Your task to perform on an android device: turn off wifi Image 0: 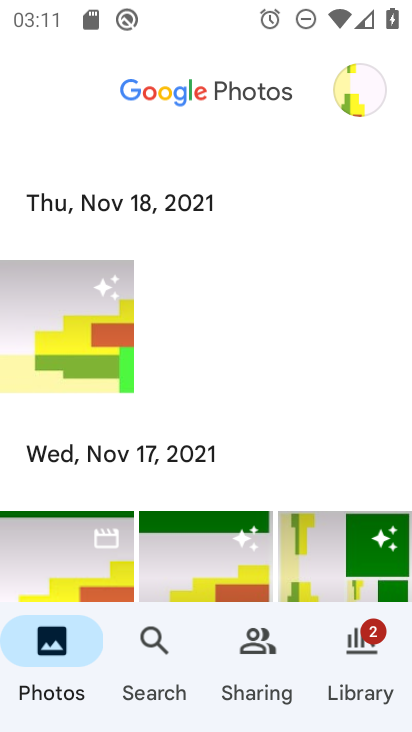
Step 0: press home button
Your task to perform on an android device: turn off wifi Image 1: 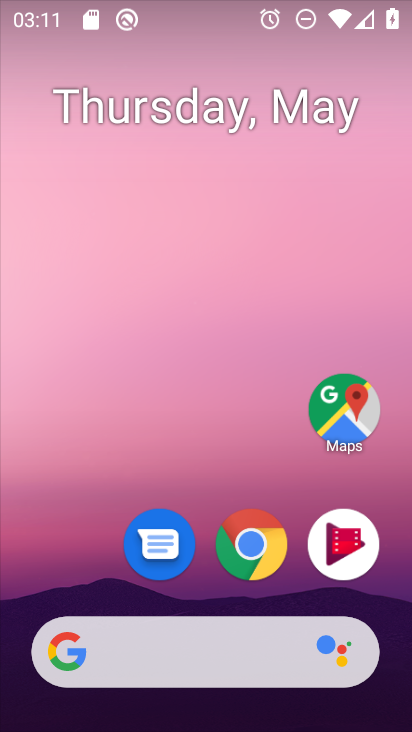
Step 1: drag from (86, 567) to (100, 114)
Your task to perform on an android device: turn off wifi Image 2: 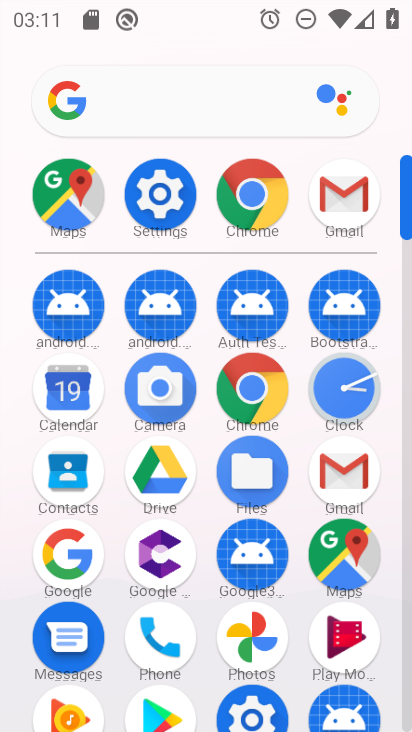
Step 2: click (166, 210)
Your task to perform on an android device: turn off wifi Image 3: 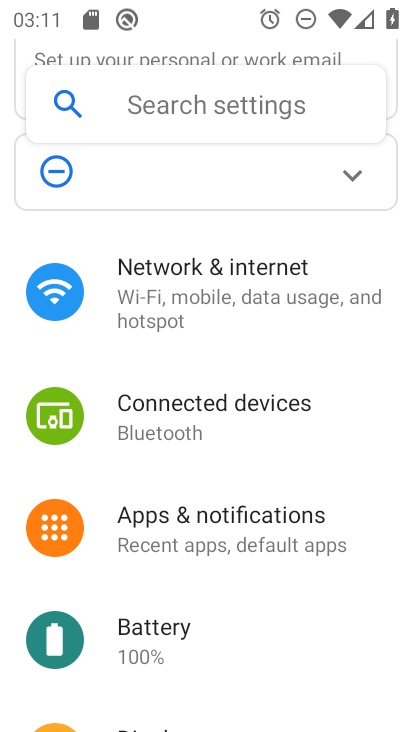
Step 3: drag from (300, 624) to (313, 514)
Your task to perform on an android device: turn off wifi Image 4: 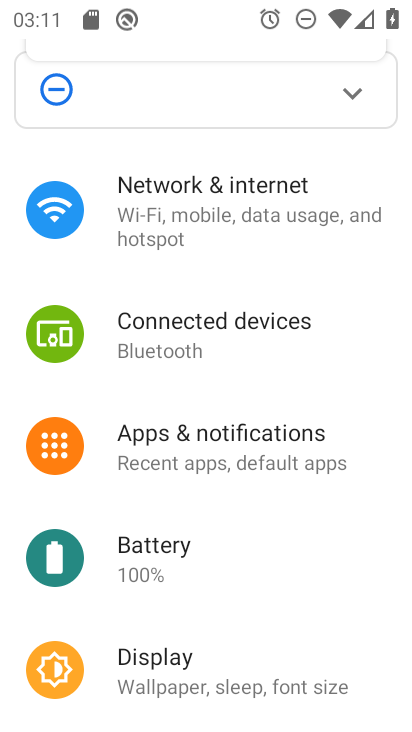
Step 4: drag from (311, 610) to (343, 472)
Your task to perform on an android device: turn off wifi Image 5: 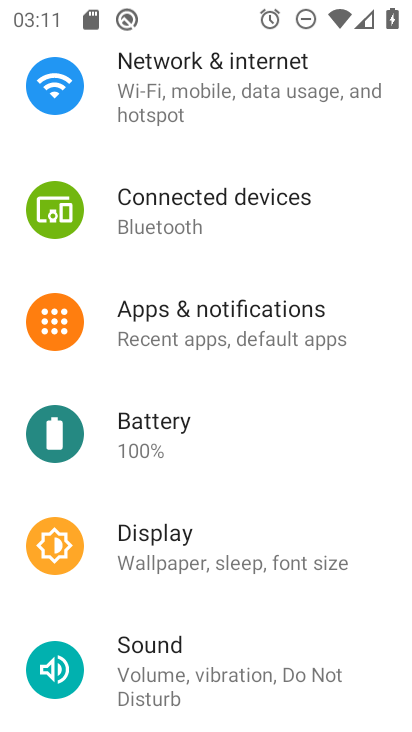
Step 5: drag from (337, 625) to (361, 469)
Your task to perform on an android device: turn off wifi Image 6: 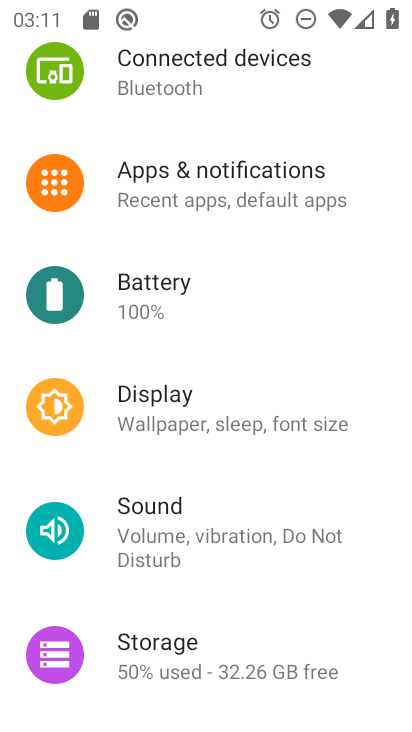
Step 6: drag from (352, 624) to (363, 487)
Your task to perform on an android device: turn off wifi Image 7: 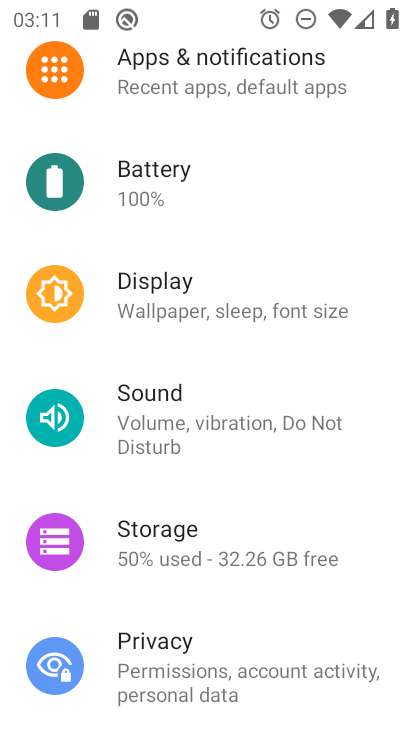
Step 7: drag from (358, 625) to (355, 489)
Your task to perform on an android device: turn off wifi Image 8: 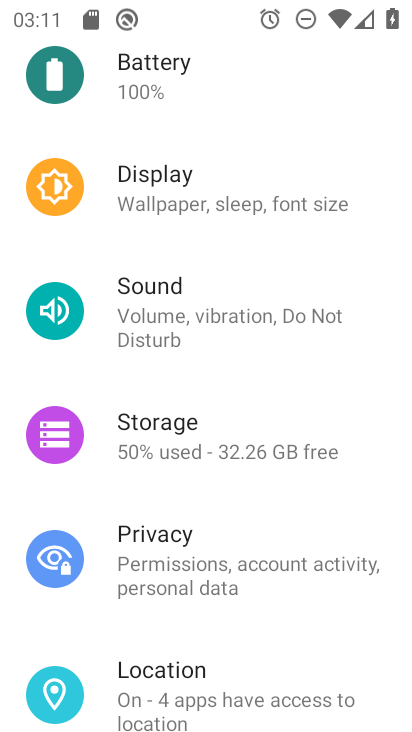
Step 8: drag from (353, 646) to (359, 522)
Your task to perform on an android device: turn off wifi Image 9: 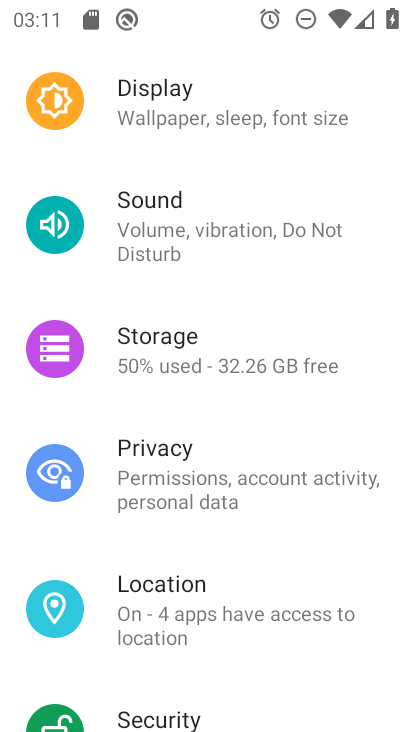
Step 9: drag from (348, 650) to (370, 520)
Your task to perform on an android device: turn off wifi Image 10: 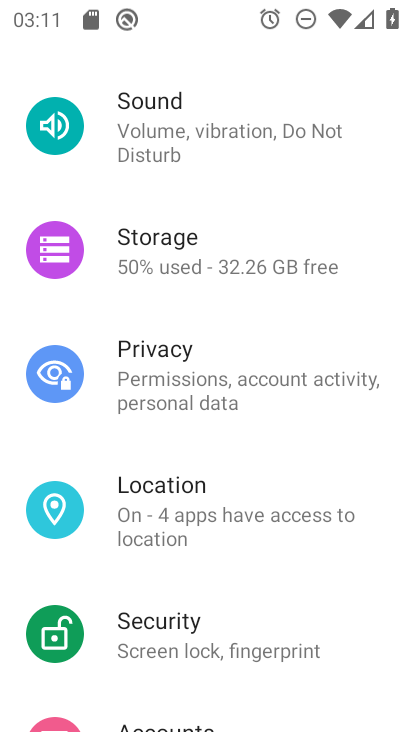
Step 10: drag from (371, 644) to (376, 537)
Your task to perform on an android device: turn off wifi Image 11: 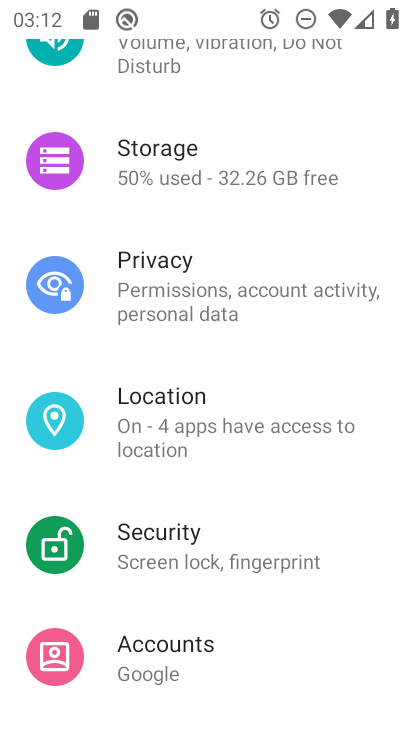
Step 11: drag from (338, 681) to (332, 566)
Your task to perform on an android device: turn off wifi Image 12: 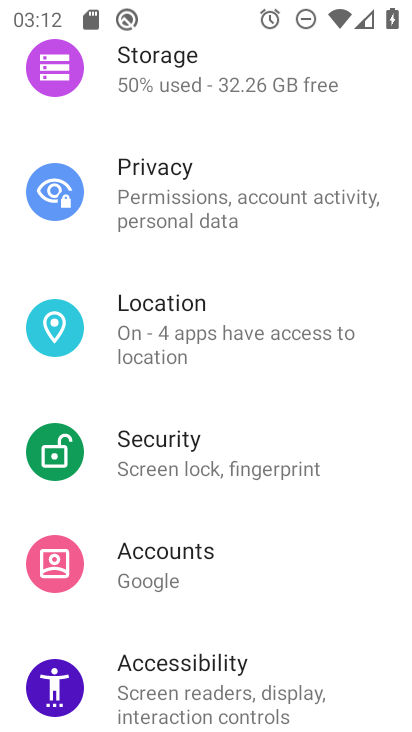
Step 12: drag from (338, 680) to (344, 572)
Your task to perform on an android device: turn off wifi Image 13: 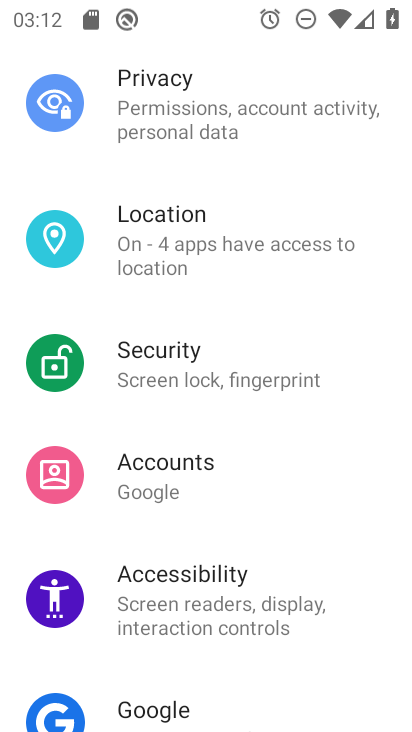
Step 13: drag from (352, 699) to (350, 563)
Your task to perform on an android device: turn off wifi Image 14: 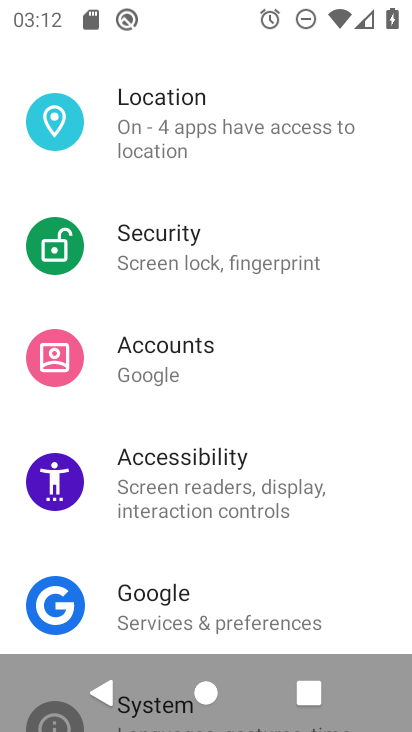
Step 14: drag from (356, 602) to (375, 456)
Your task to perform on an android device: turn off wifi Image 15: 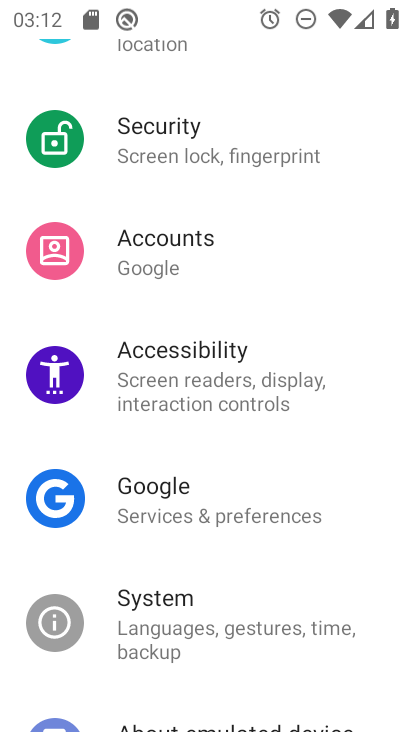
Step 15: drag from (351, 583) to (362, 456)
Your task to perform on an android device: turn off wifi Image 16: 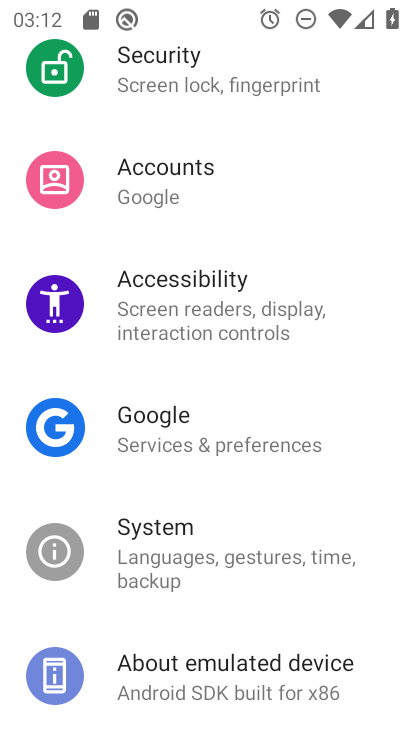
Step 16: drag from (368, 582) to (373, 471)
Your task to perform on an android device: turn off wifi Image 17: 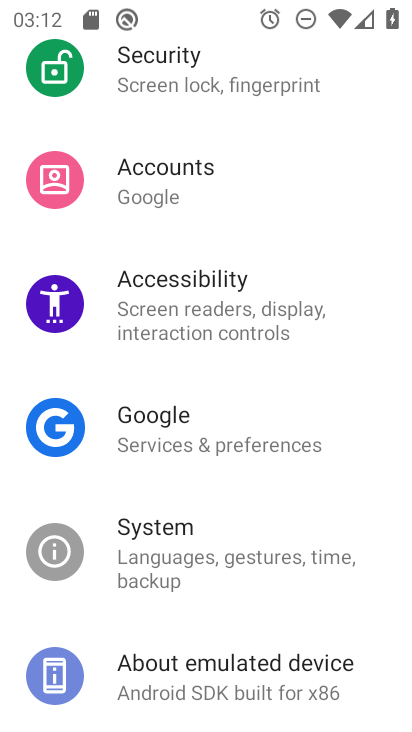
Step 17: drag from (359, 338) to (348, 471)
Your task to perform on an android device: turn off wifi Image 18: 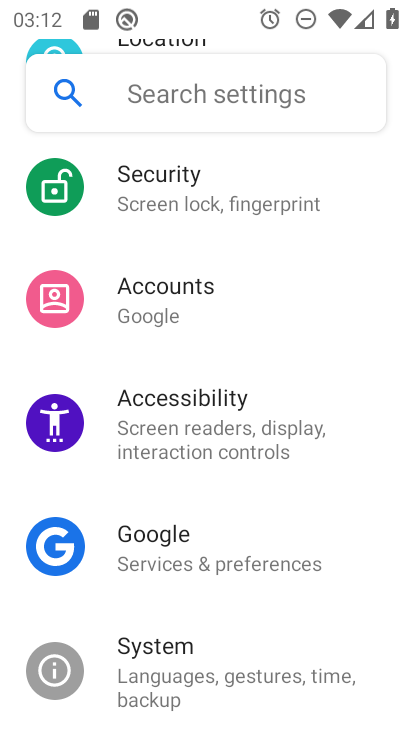
Step 18: drag from (348, 335) to (352, 465)
Your task to perform on an android device: turn off wifi Image 19: 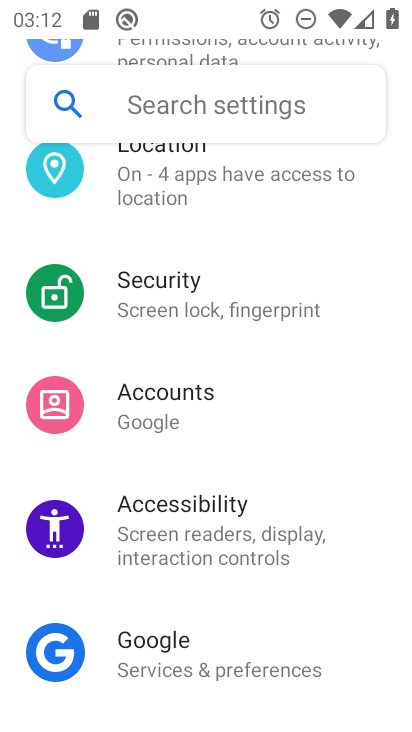
Step 19: drag from (366, 274) to (353, 421)
Your task to perform on an android device: turn off wifi Image 20: 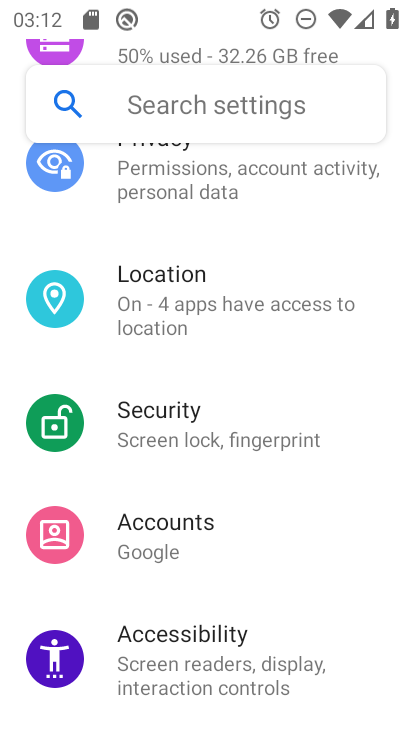
Step 20: drag from (360, 236) to (343, 399)
Your task to perform on an android device: turn off wifi Image 21: 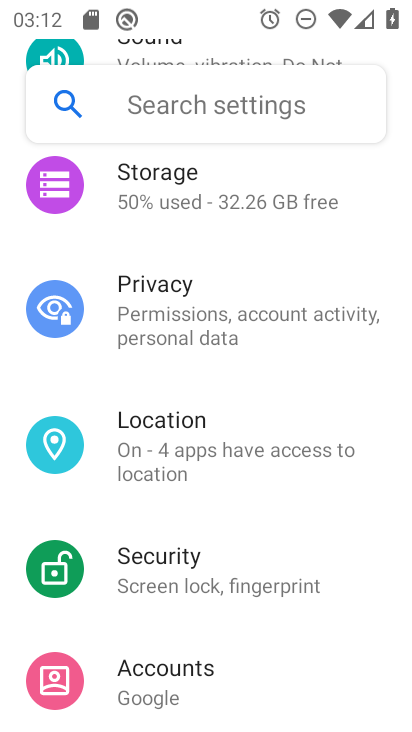
Step 21: drag from (366, 206) to (361, 366)
Your task to perform on an android device: turn off wifi Image 22: 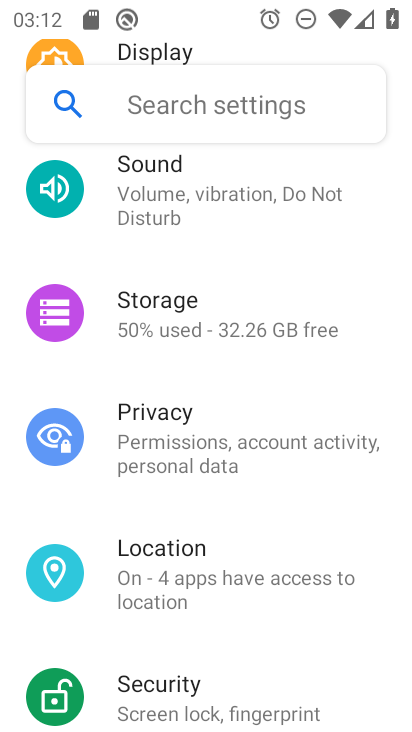
Step 22: drag from (360, 198) to (360, 361)
Your task to perform on an android device: turn off wifi Image 23: 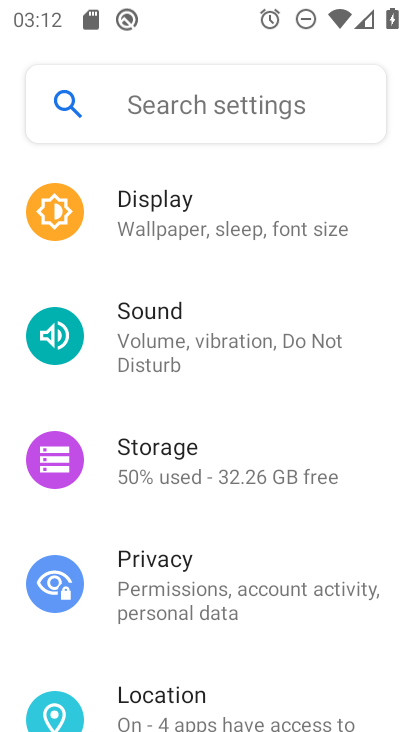
Step 23: drag from (376, 183) to (362, 338)
Your task to perform on an android device: turn off wifi Image 24: 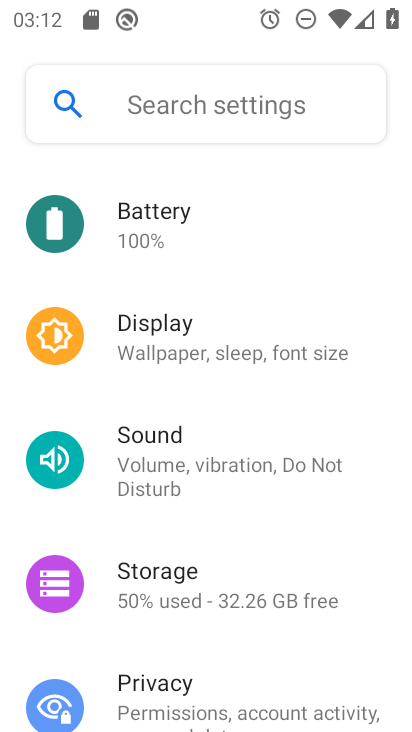
Step 24: drag from (359, 178) to (355, 362)
Your task to perform on an android device: turn off wifi Image 25: 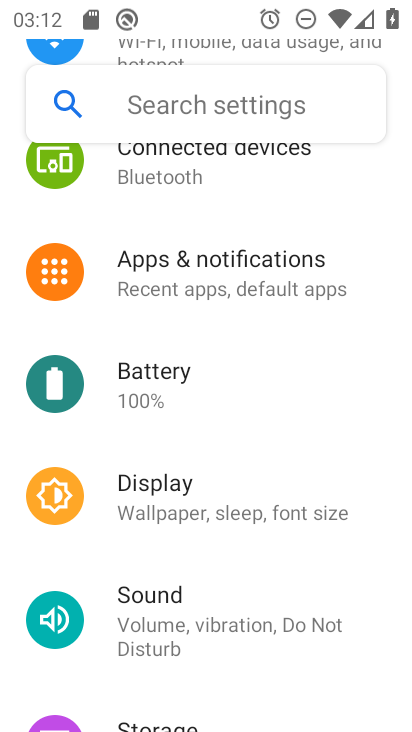
Step 25: drag from (351, 211) to (334, 354)
Your task to perform on an android device: turn off wifi Image 26: 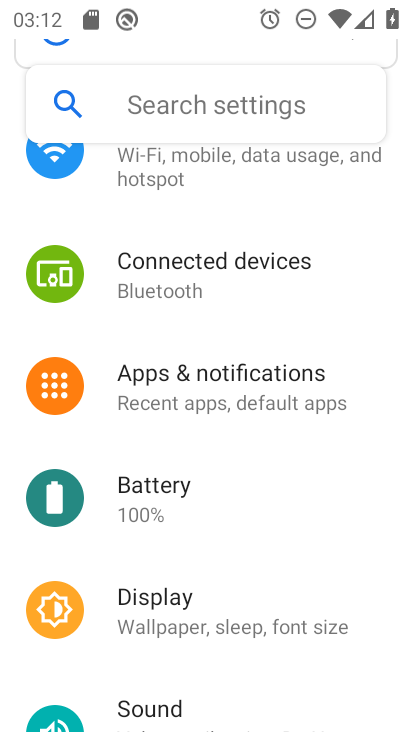
Step 26: drag from (331, 201) to (326, 339)
Your task to perform on an android device: turn off wifi Image 27: 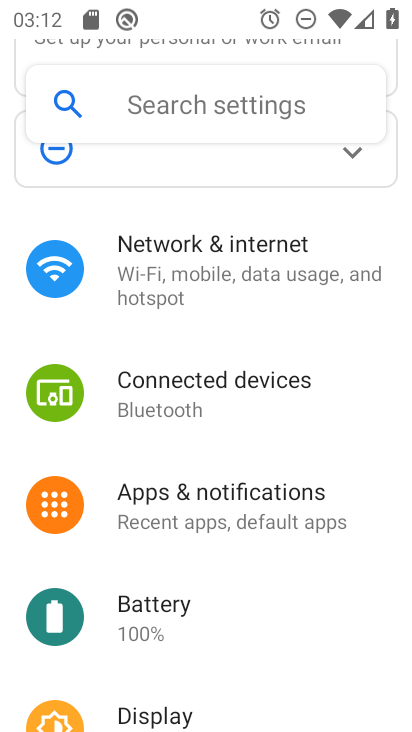
Step 27: click (255, 277)
Your task to perform on an android device: turn off wifi Image 28: 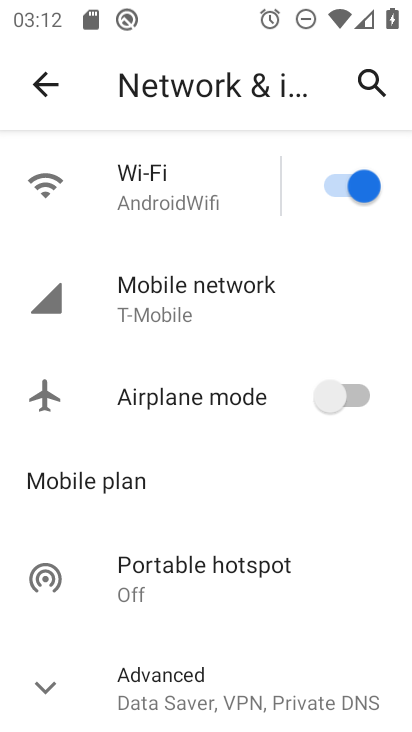
Step 28: click (372, 184)
Your task to perform on an android device: turn off wifi Image 29: 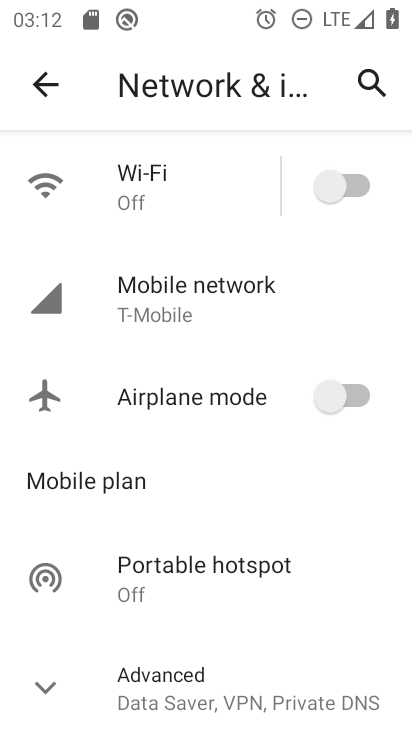
Step 29: task complete